Your task to perform on an android device: turn on bluetooth scan Image 0: 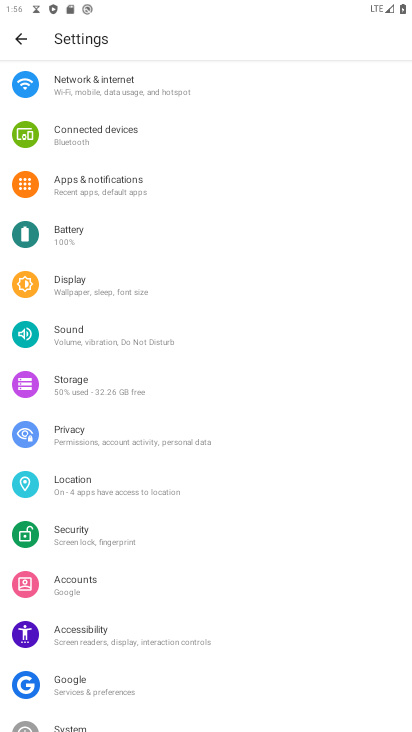
Step 0: click (72, 487)
Your task to perform on an android device: turn on bluetooth scan Image 1: 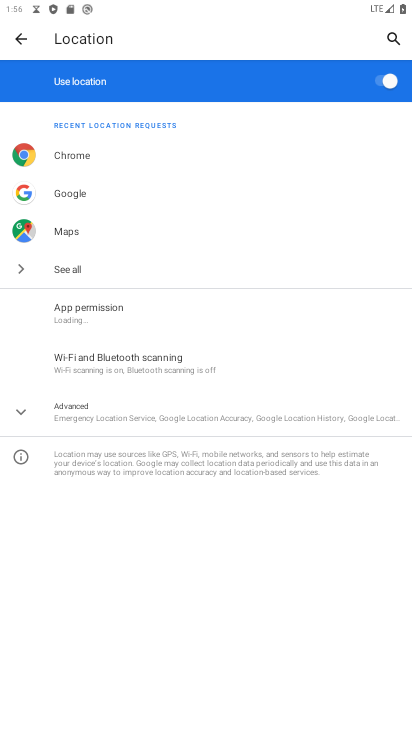
Step 1: click (129, 364)
Your task to perform on an android device: turn on bluetooth scan Image 2: 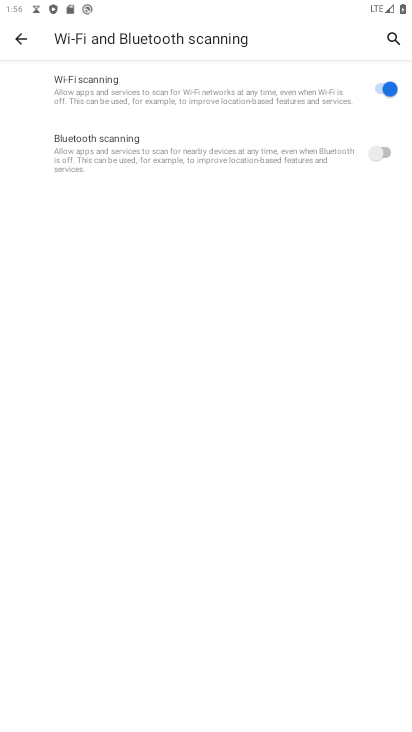
Step 2: click (382, 148)
Your task to perform on an android device: turn on bluetooth scan Image 3: 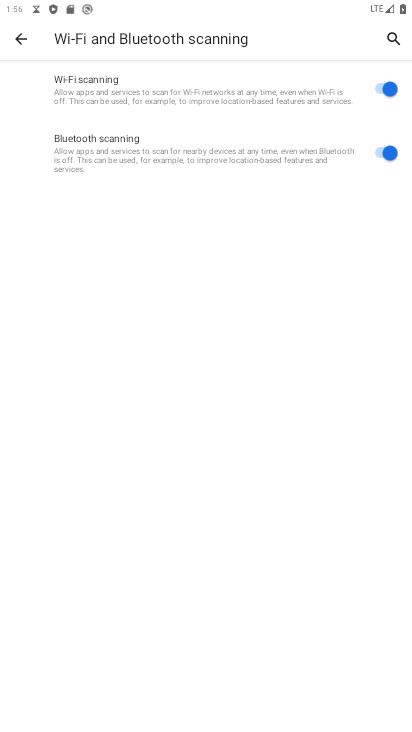
Step 3: task complete